Your task to perform on an android device: Show me productivity apps on the Play Store Image 0: 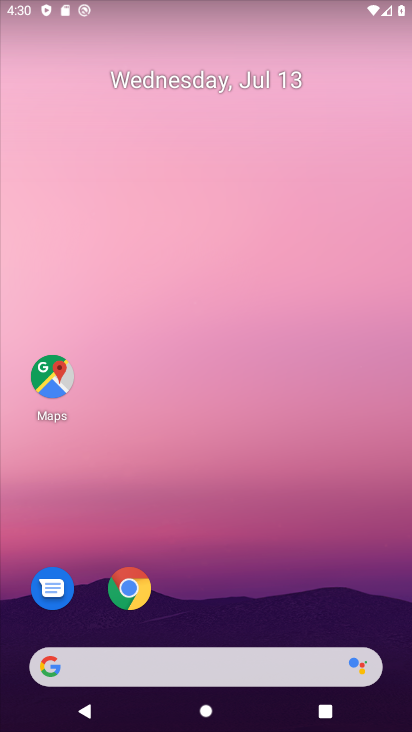
Step 0: drag from (188, 612) to (262, 135)
Your task to perform on an android device: Show me productivity apps on the Play Store Image 1: 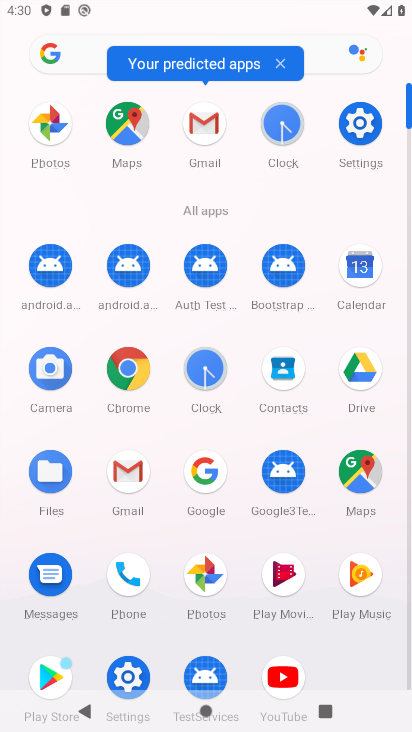
Step 1: click (49, 669)
Your task to perform on an android device: Show me productivity apps on the Play Store Image 2: 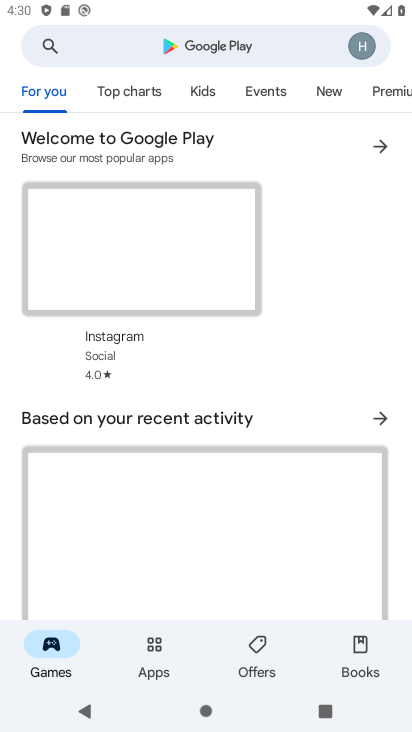
Step 2: click (165, 654)
Your task to perform on an android device: Show me productivity apps on the Play Store Image 3: 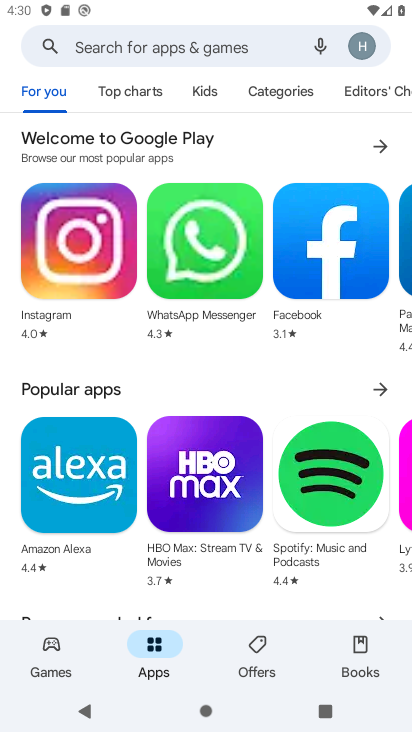
Step 3: click (288, 97)
Your task to perform on an android device: Show me productivity apps on the Play Store Image 4: 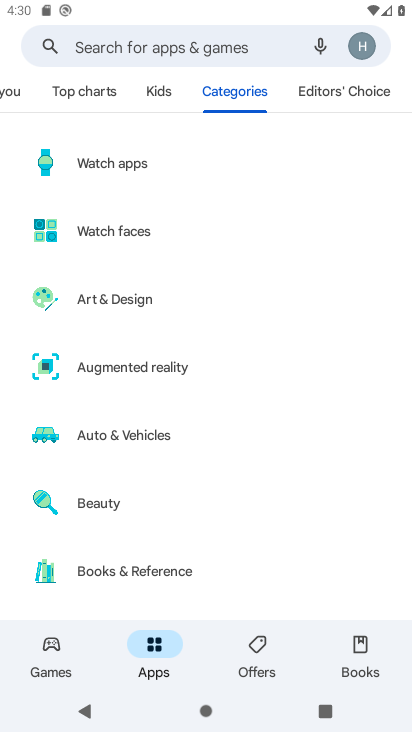
Step 4: drag from (212, 553) to (285, 166)
Your task to perform on an android device: Show me productivity apps on the Play Store Image 5: 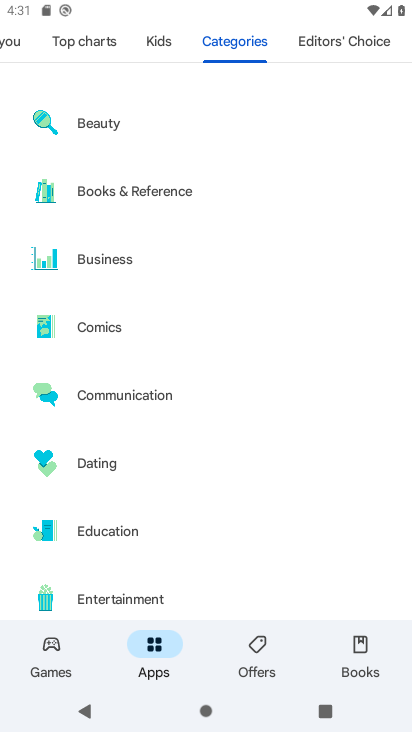
Step 5: drag from (126, 554) to (303, 197)
Your task to perform on an android device: Show me productivity apps on the Play Store Image 6: 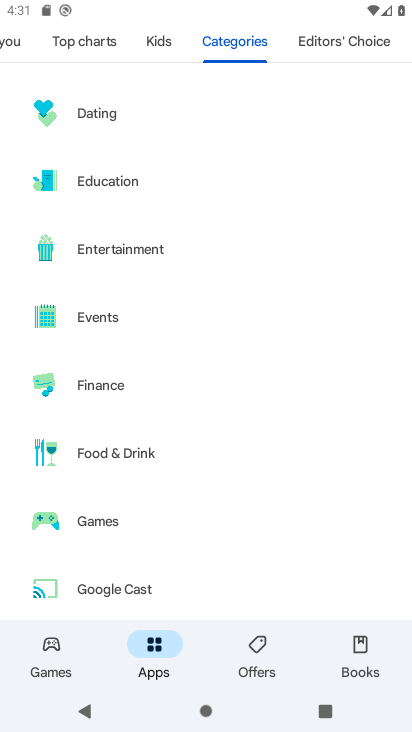
Step 6: drag from (229, 566) to (303, 167)
Your task to perform on an android device: Show me productivity apps on the Play Store Image 7: 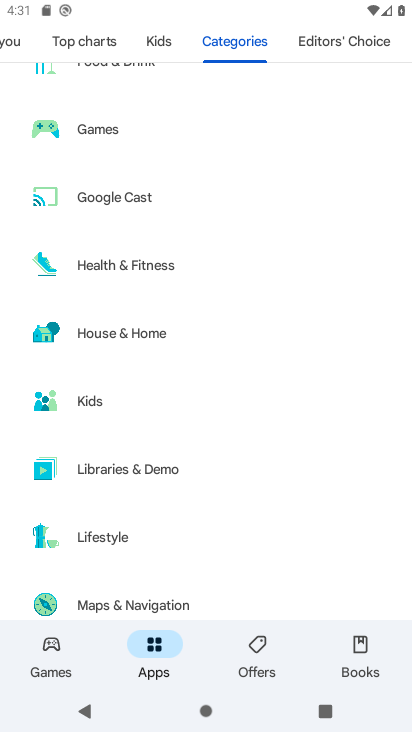
Step 7: drag from (140, 589) to (199, 171)
Your task to perform on an android device: Show me productivity apps on the Play Store Image 8: 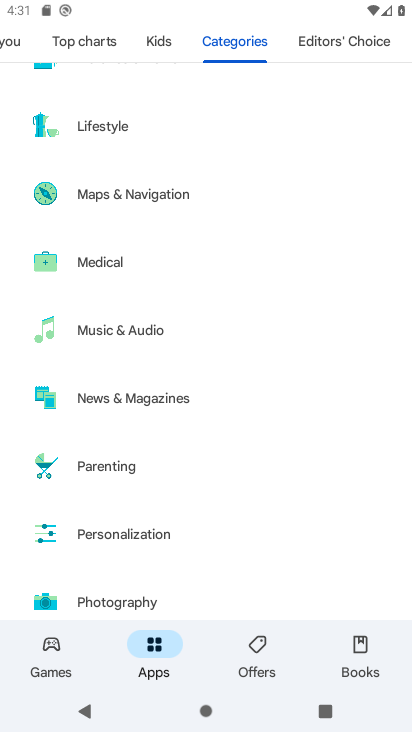
Step 8: drag from (141, 562) to (186, 254)
Your task to perform on an android device: Show me productivity apps on the Play Store Image 9: 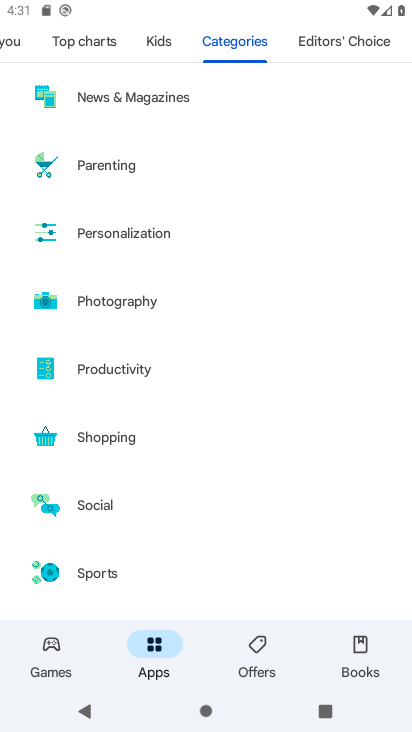
Step 9: click (130, 379)
Your task to perform on an android device: Show me productivity apps on the Play Store Image 10: 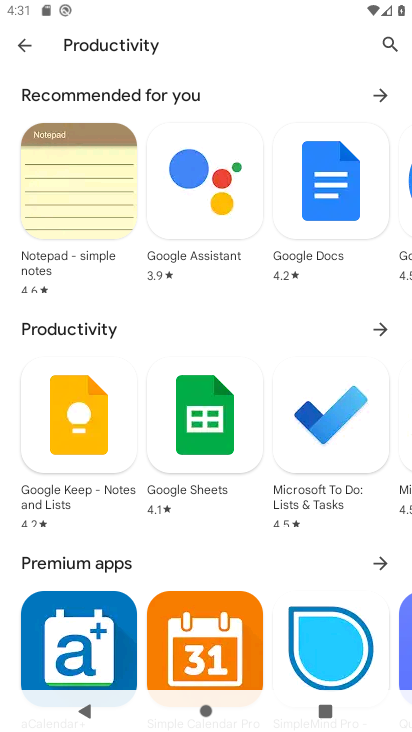
Step 10: task complete